Your task to perform on an android device: See recent photos Image 0: 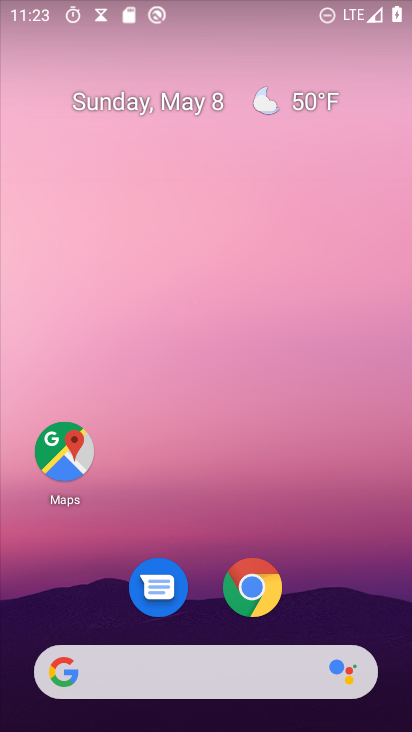
Step 0: drag from (324, 594) to (244, 210)
Your task to perform on an android device: See recent photos Image 1: 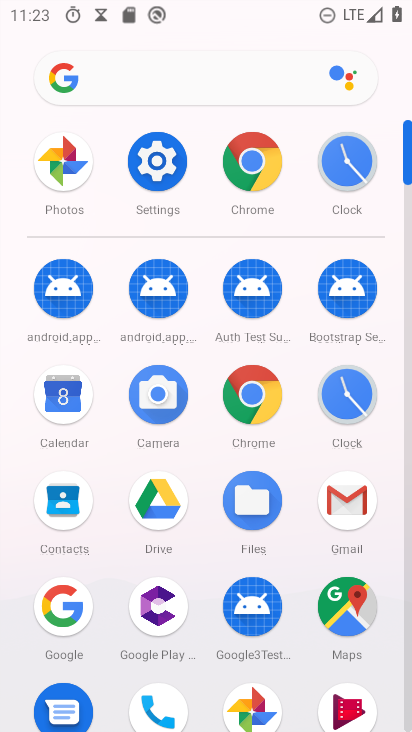
Step 1: click (59, 162)
Your task to perform on an android device: See recent photos Image 2: 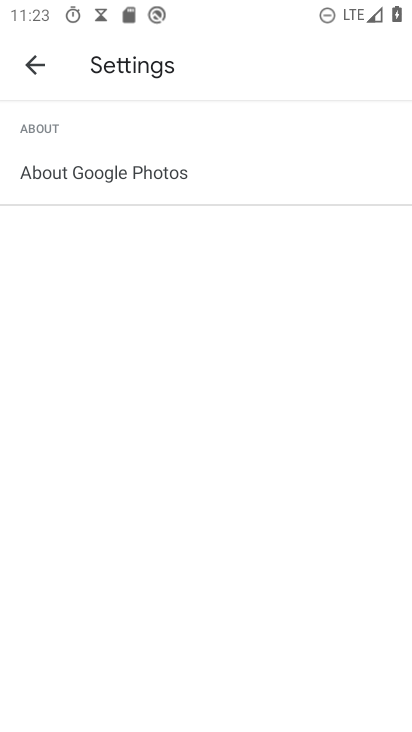
Step 2: press back button
Your task to perform on an android device: See recent photos Image 3: 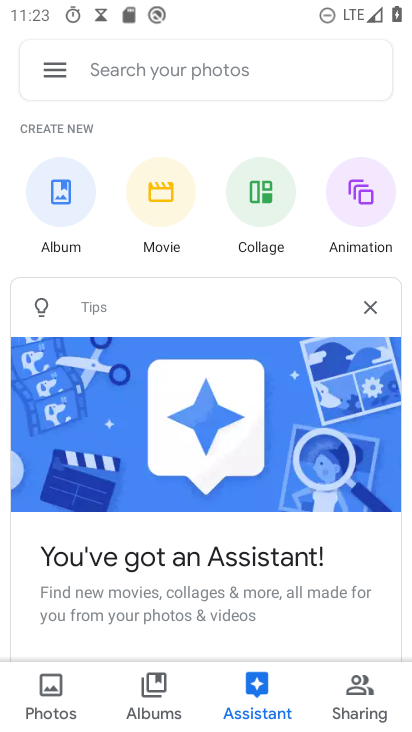
Step 3: click (51, 695)
Your task to perform on an android device: See recent photos Image 4: 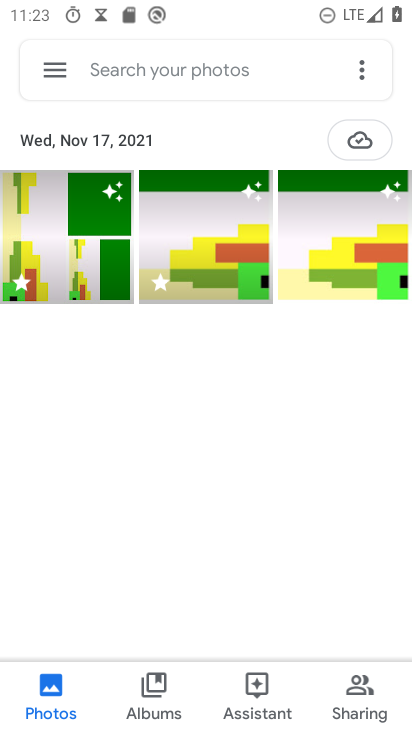
Step 4: task complete